Your task to perform on an android device: make emails show in primary in the gmail app Image 0: 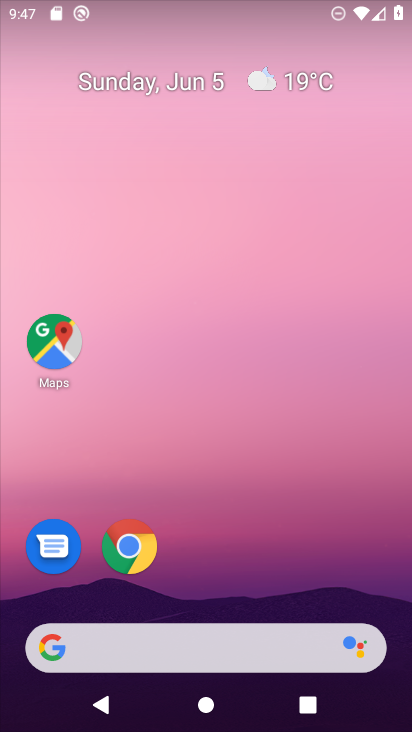
Step 0: drag from (206, 606) to (43, 32)
Your task to perform on an android device: make emails show in primary in the gmail app Image 1: 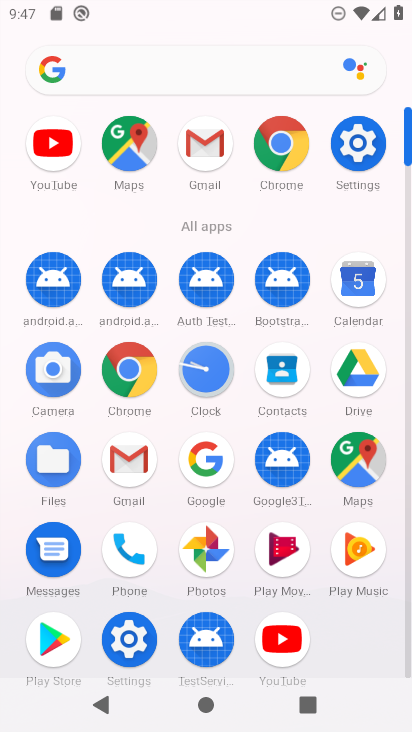
Step 1: click (132, 465)
Your task to perform on an android device: make emails show in primary in the gmail app Image 2: 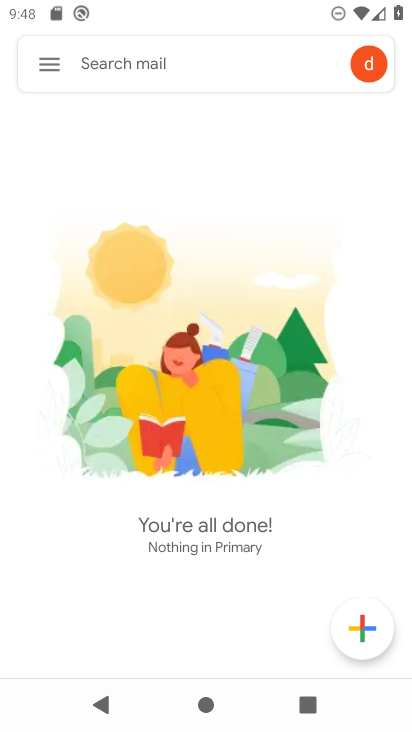
Step 2: task complete